Your task to perform on an android device: Open sound settings Image 0: 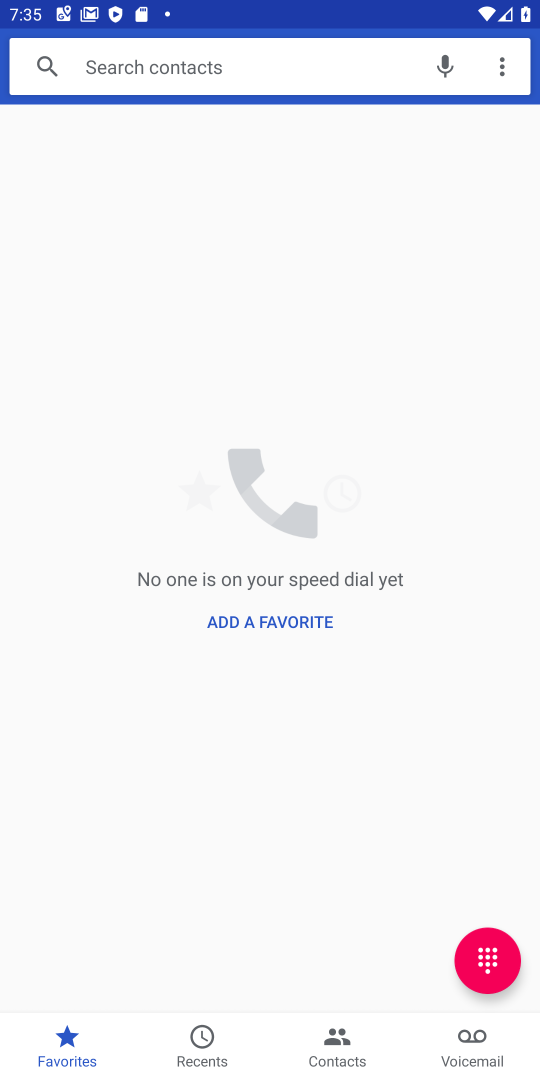
Step 0: press home button
Your task to perform on an android device: Open sound settings Image 1: 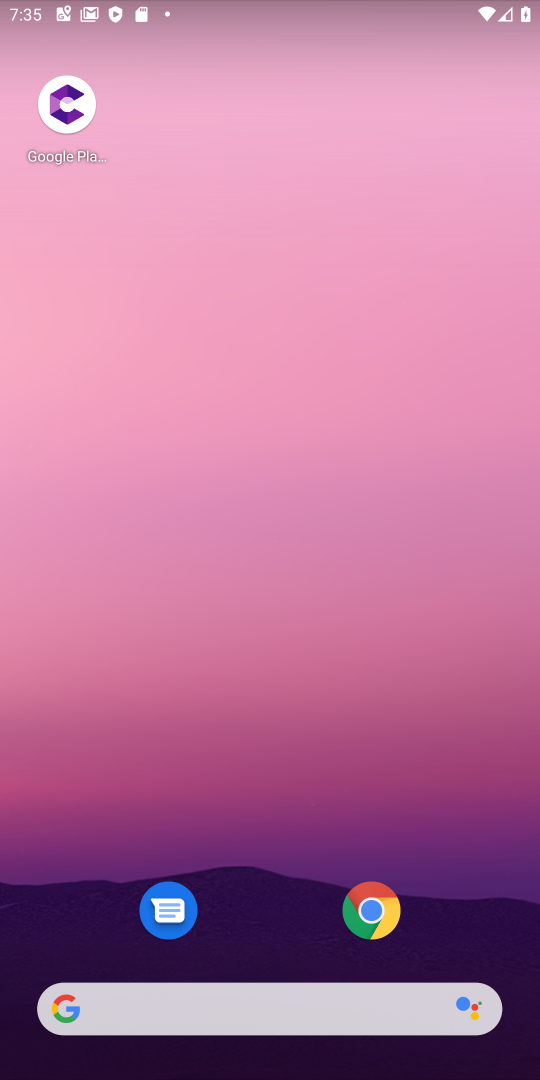
Step 1: drag from (253, 815) to (306, 205)
Your task to perform on an android device: Open sound settings Image 2: 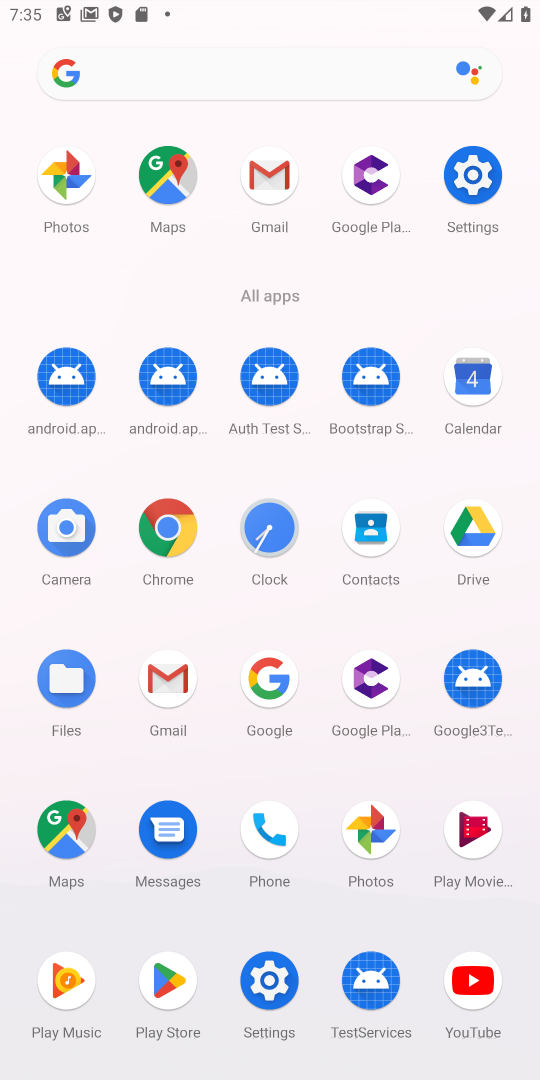
Step 2: click (477, 170)
Your task to perform on an android device: Open sound settings Image 3: 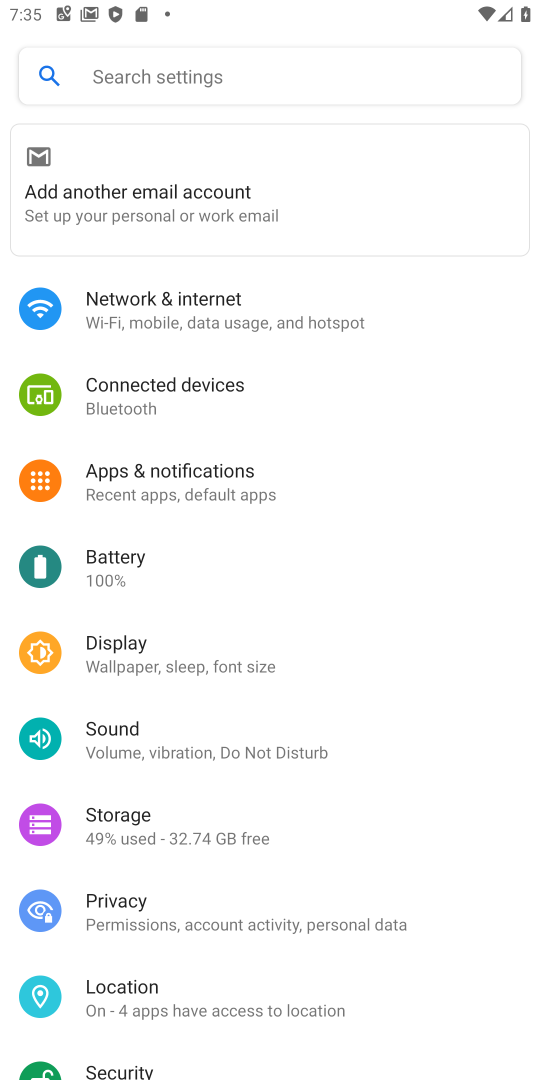
Step 3: click (206, 733)
Your task to perform on an android device: Open sound settings Image 4: 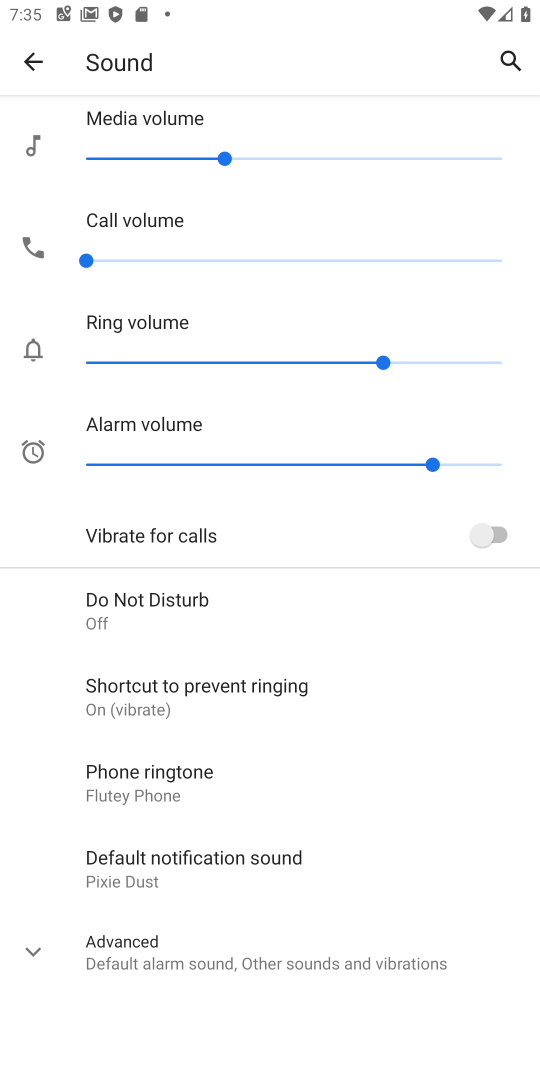
Step 4: task complete